Your task to perform on an android device: open app "DoorDash - Dasher" (install if not already installed) Image 0: 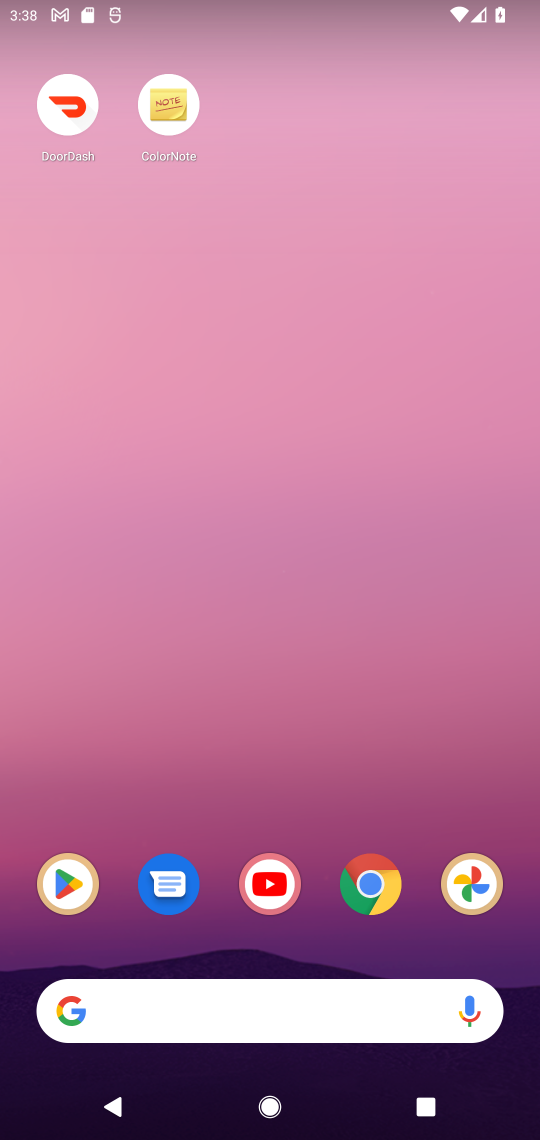
Step 0: drag from (346, 639) to (328, 447)
Your task to perform on an android device: open app "DoorDash - Dasher" (install if not already installed) Image 1: 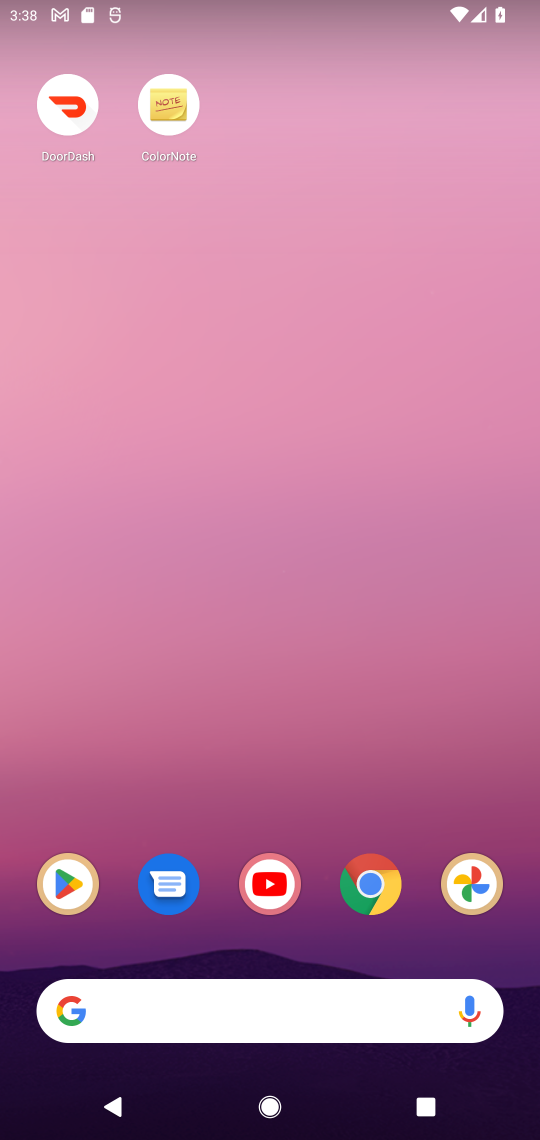
Step 1: drag from (366, 1002) to (364, 315)
Your task to perform on an android device: open app "DoorDash - Dasher" (install if not already installed) Image 2: 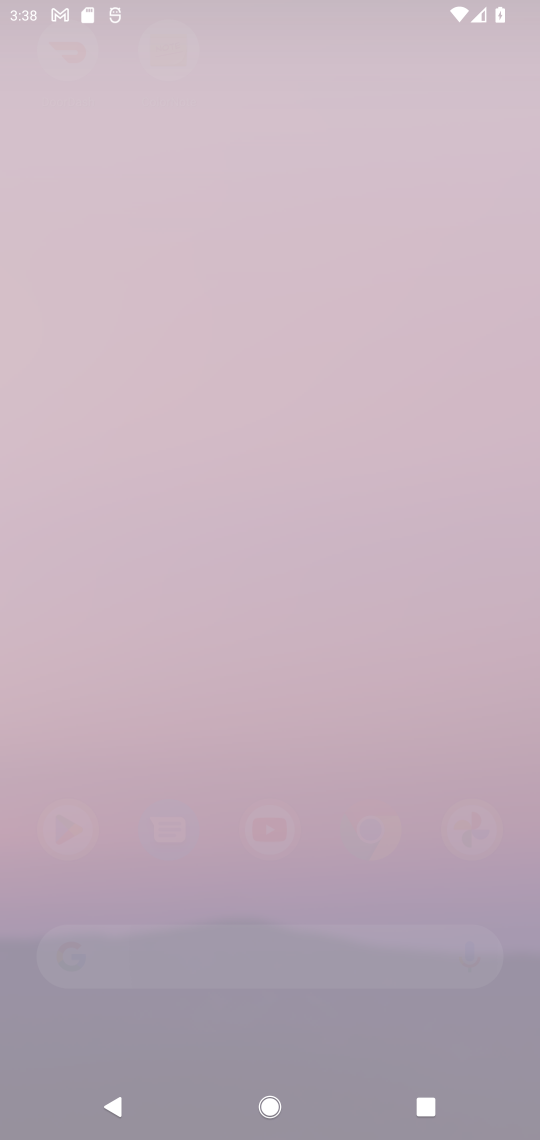
Step 2: drag from (403, 920) to (354, 405)
Your task to perform on an android device: open app "DoorDash - Dasher" (install if not already installed) Image 3: 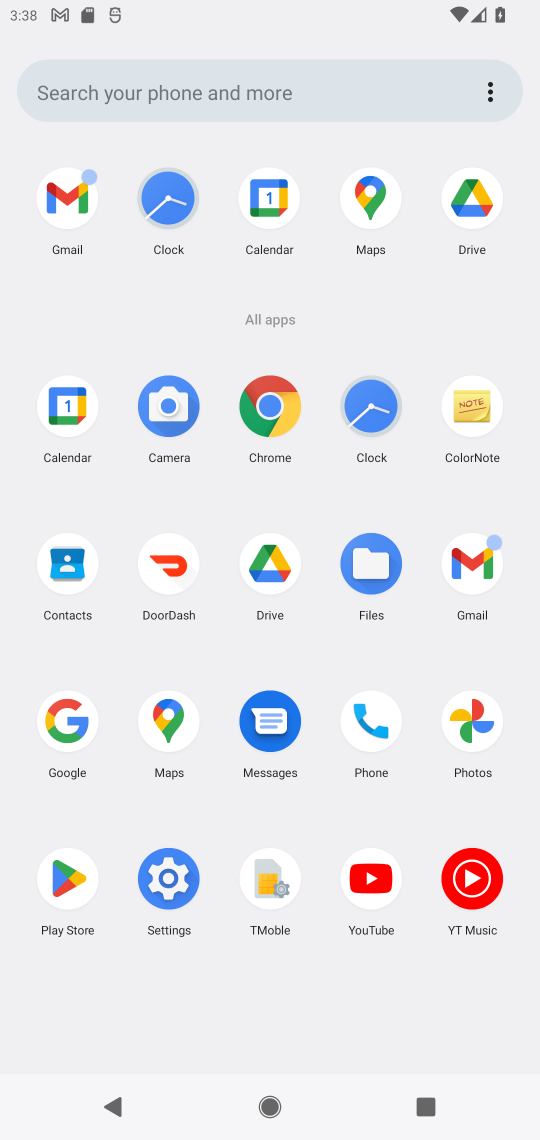
Step 3: click (57, 881)
Your task to perform on an android device: open app "DoorDash - Dasher" (install if not already installed) Image 4: 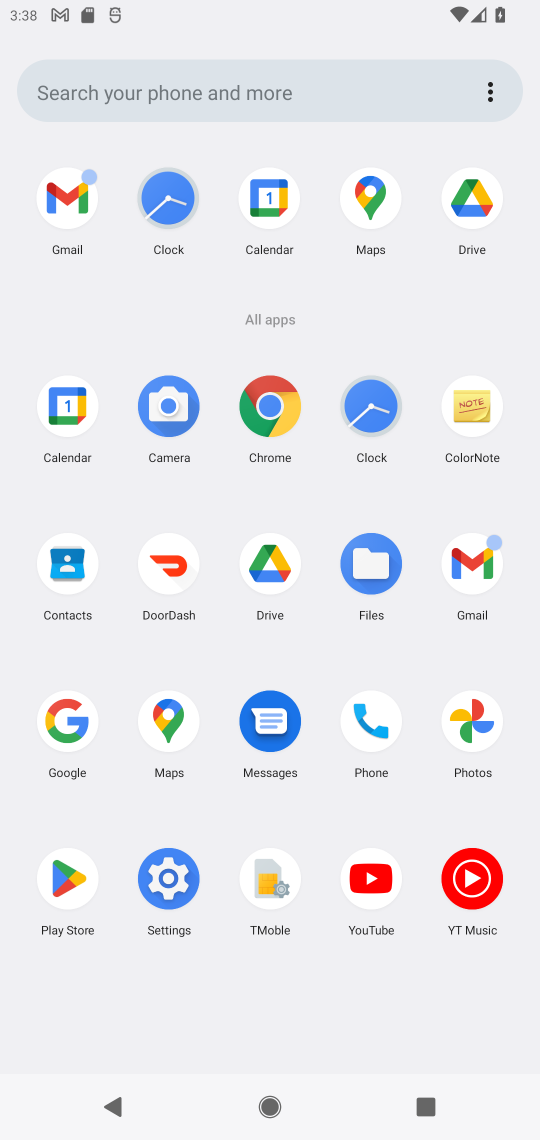
Step 4: click (63, 893)
Your task to perform on an android device: open app "DoorDash - Dasher" (install if not already installed) Image 5: 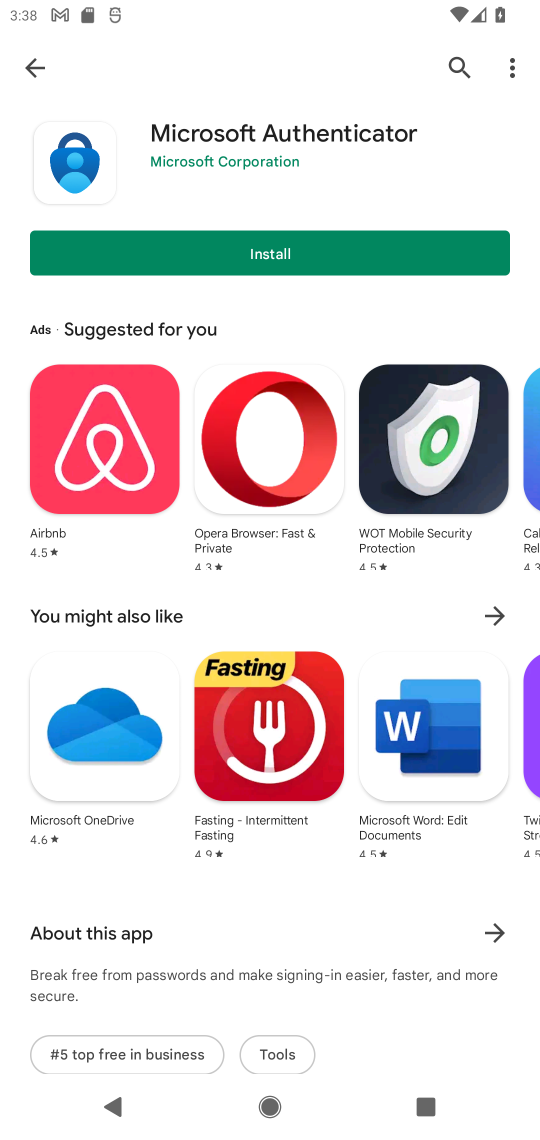
Step 5: click (24, 60)
Your task to perform on an android device: open app "DoorDash - Dasher" (install if not already installed) Image 6: 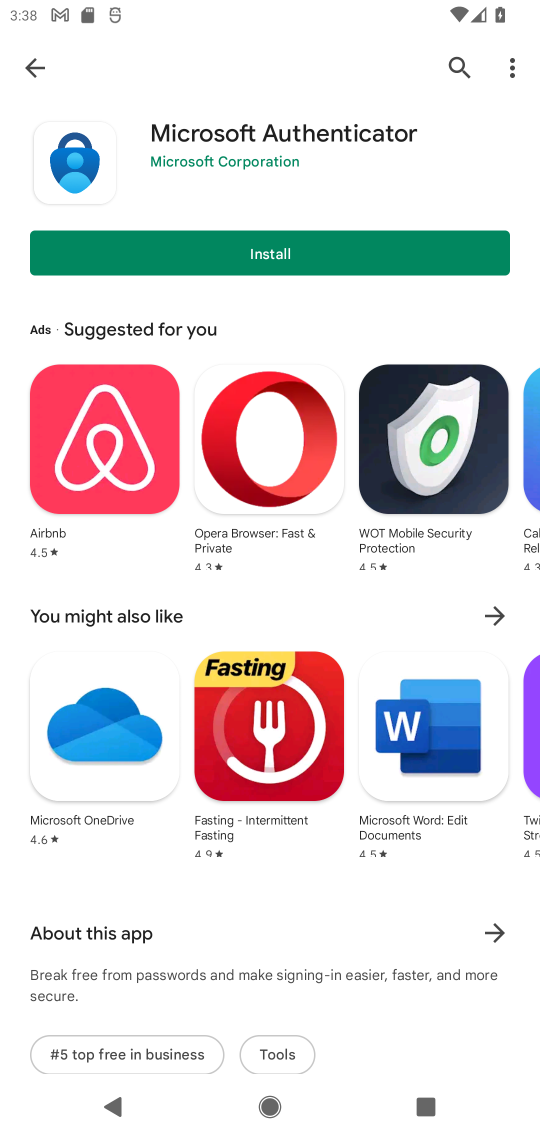
Step 6: click (27, 61)
Your task to perform on an android device: open app "DoorDash - Dasher" (install if not already installed) Image 7: 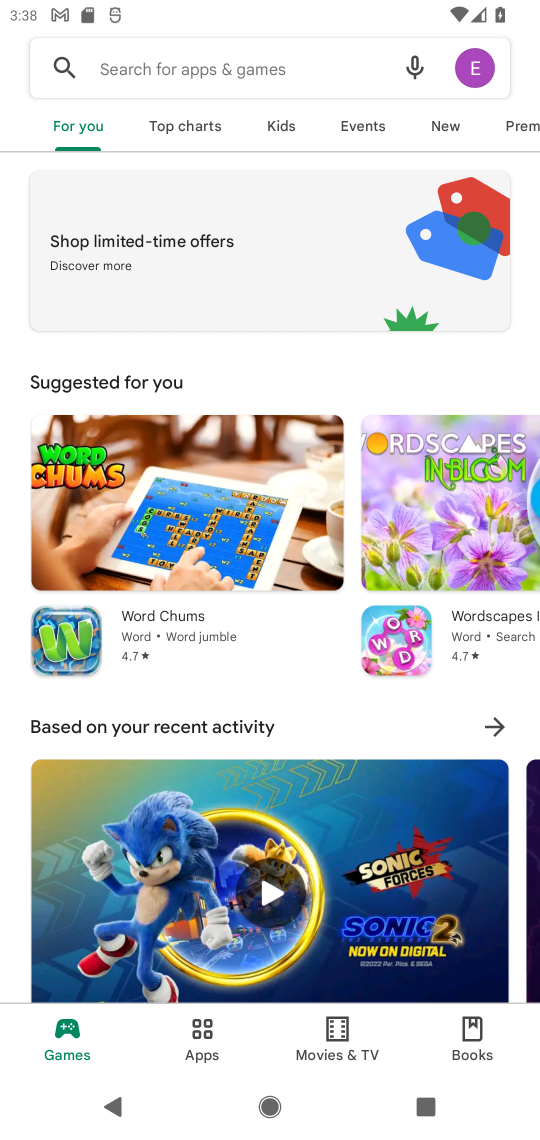
Step 7: click (118, 64)
Your task to perform on an android device: open app "DoorDash - Dasher" (install if not already installed) Image 8: 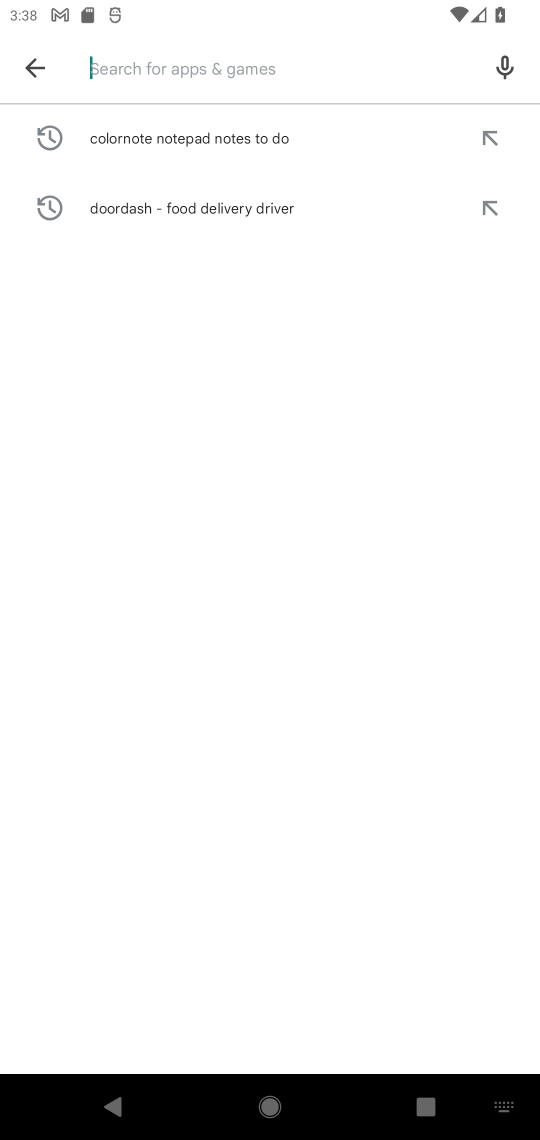
Step 8: type "DoorDash - Dasher"
Your task to perform on an android device: open app "DoorDash - Dasher" (install if not already installed) Image 9: 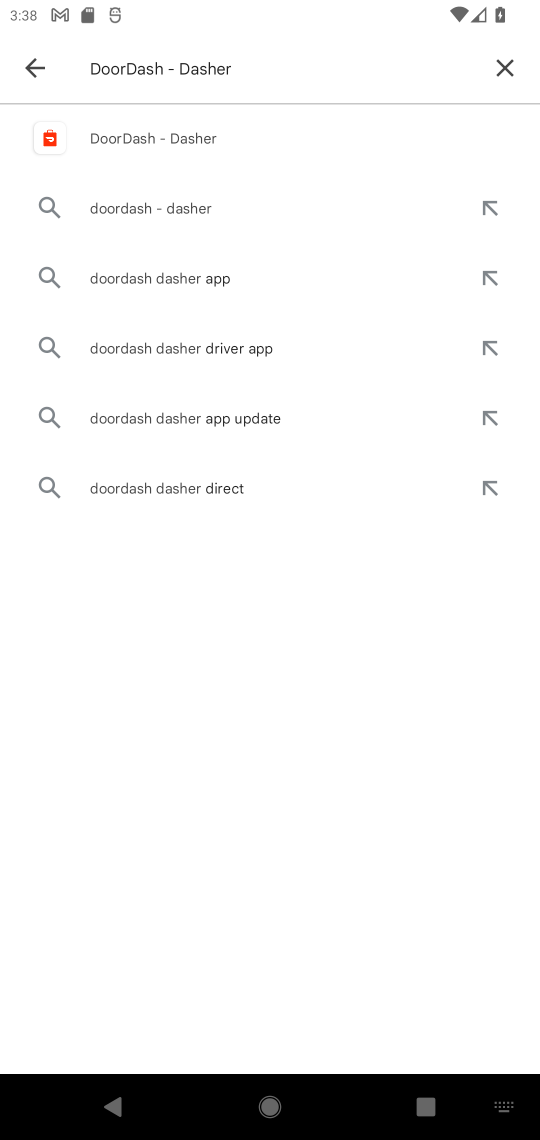
Step 9: click (148, 131)
Your task to perform on an android device: open app "DoorDash - Dasher" (install if not already installed) Image 10: 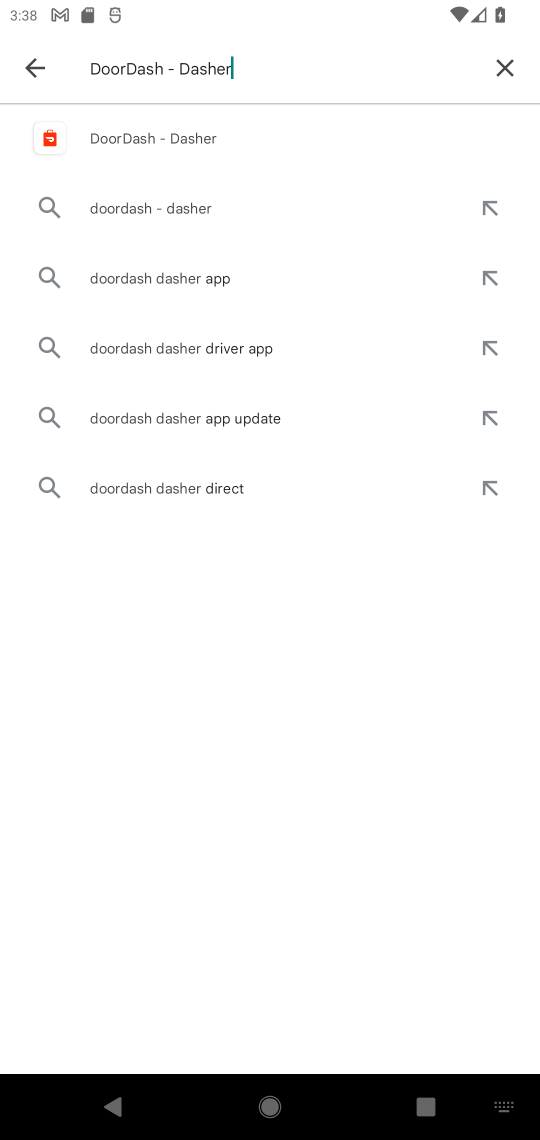
Step 10: click (148, 133)
Your task to perform on an android device: open app "DoorDash - Dasher" (install if not already installed) Image 11: 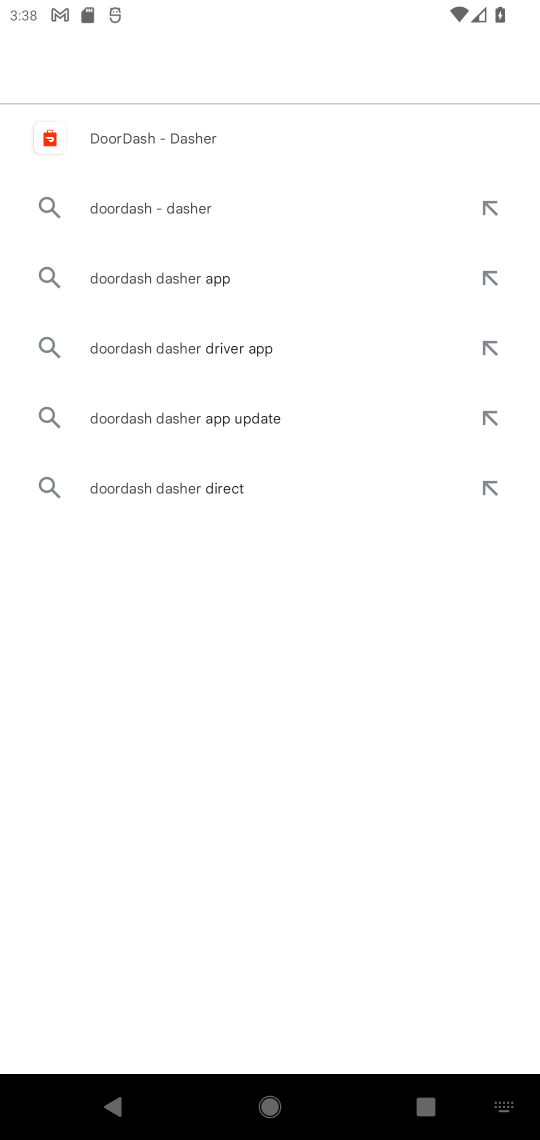
Step 11: click (150, 136)
Your task to perform on an android device: open app "DoorDash - Dasher" (install if not already installed) Image 12: 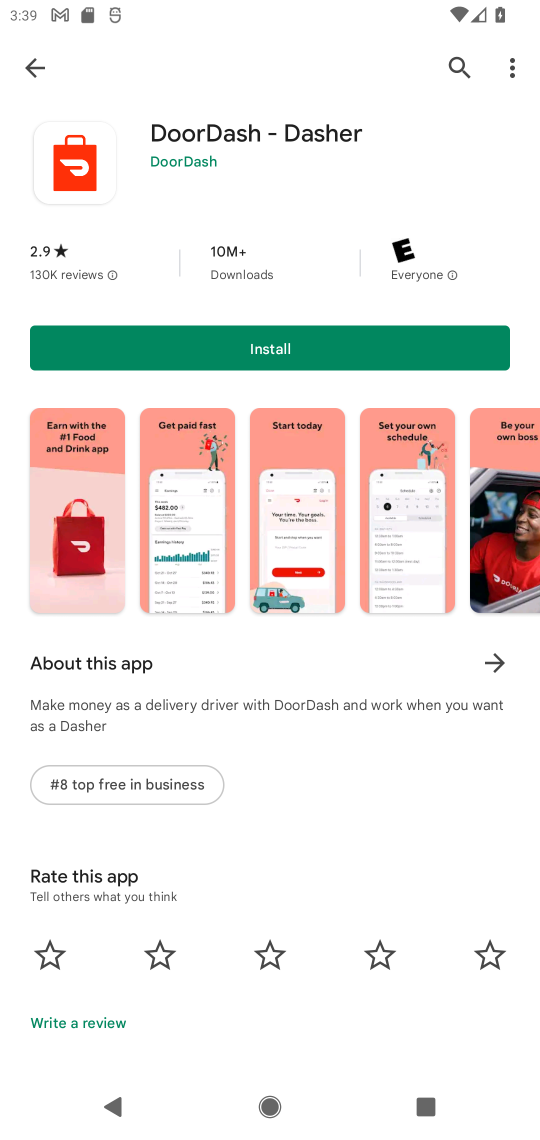
Step 12: click (293, 338)
Your task to perform on an android device: open app "DoorDash - Dasher" (install if not already installed) Image 13: 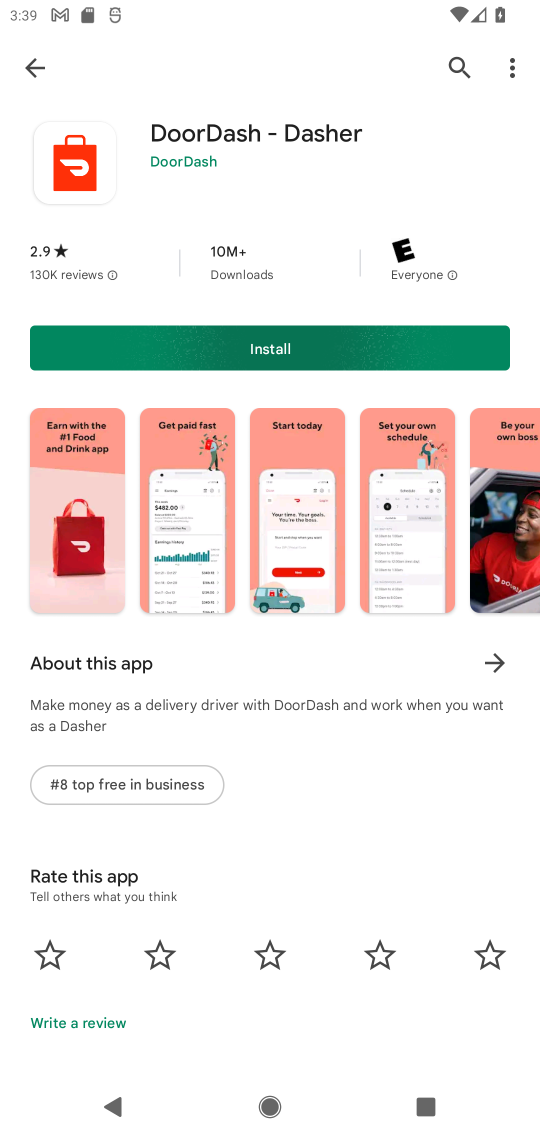
Step 13: click (297, 340)
Your task to perform on an android device: open app "DoorDash - Dasher" (install if not already installed) Image 14: 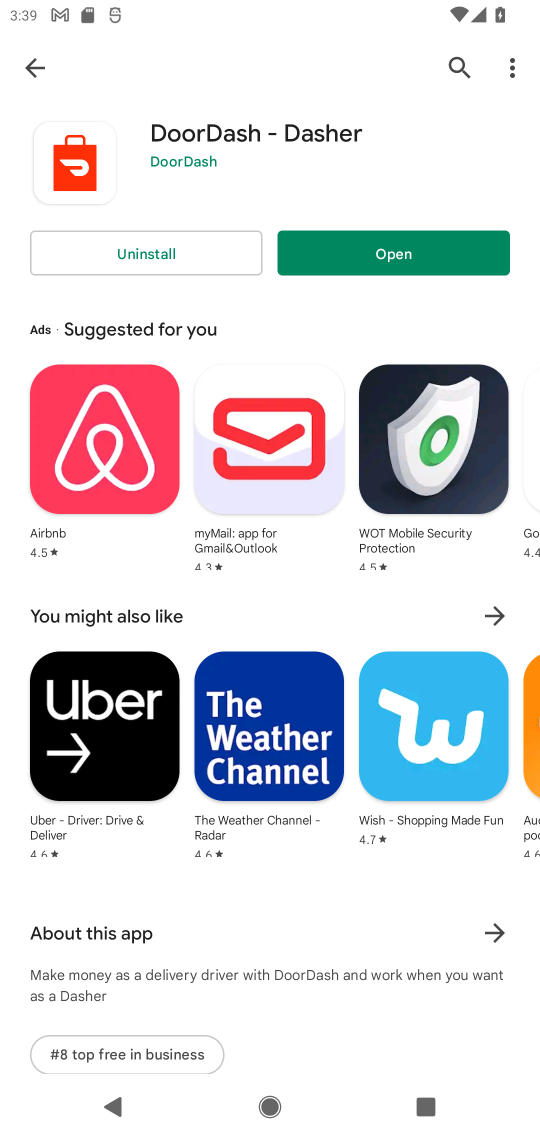
Step 14: click (396, 227)
Your task to perform on an android device: open app "DoorDash - Dasher" (install if not already installed) Image 15: 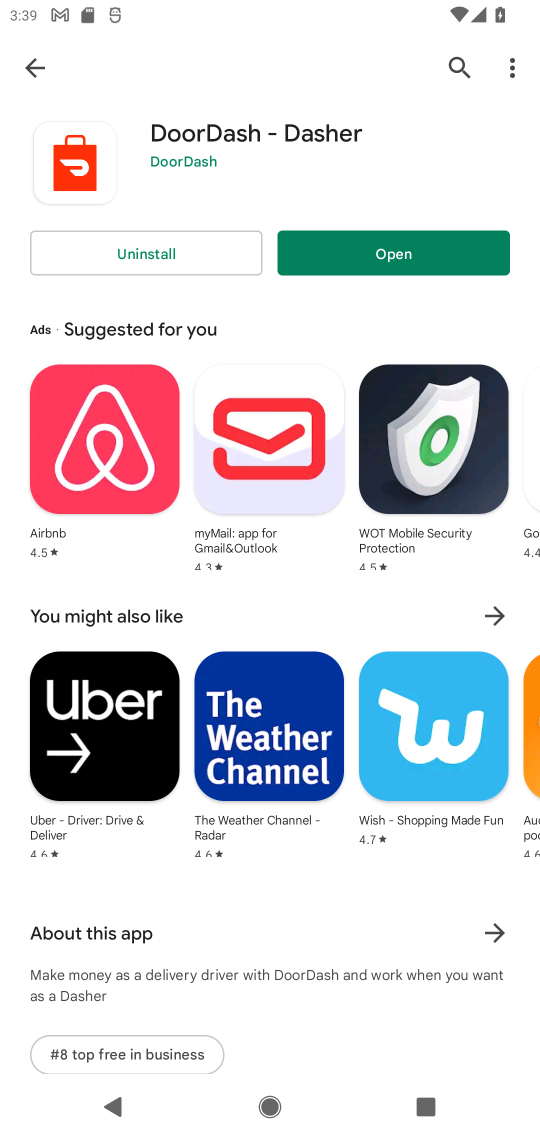
Step 15: click (394, 239)
Your task to perform on an android device: open app "DoorDash - Dasher" (install if not already installed) Image 16: 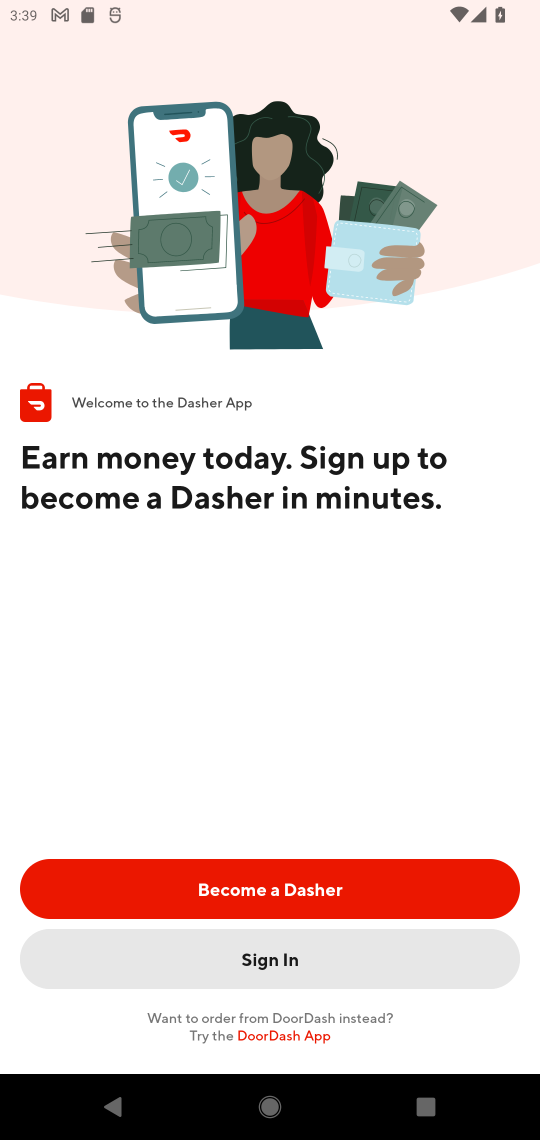
Step 16: task complete